Your task to perform on an android device: turn on improve location accuracy Image 0: 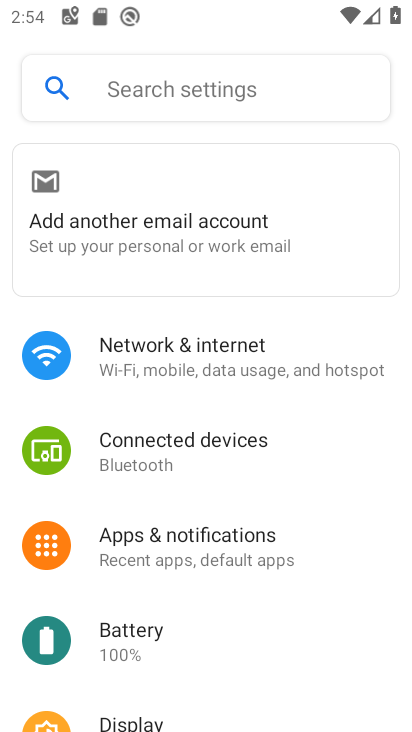
Step 0: drag from (219, 622) to (230, 314)
Your task to perform on an android device: turn on improve location accuracy Image 1: 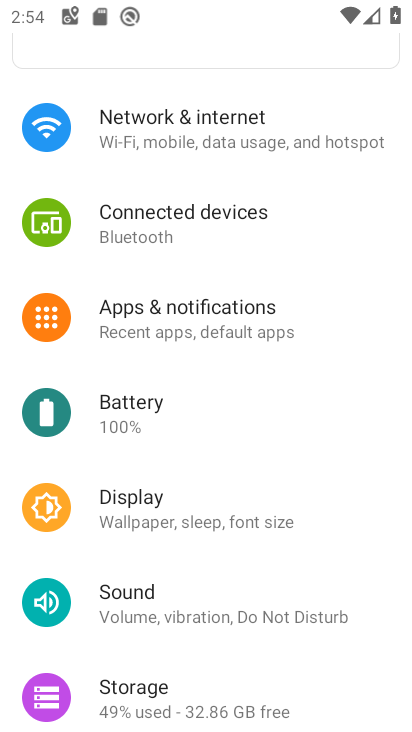
Step 1: drag from (168, 653) to (296, 128)
Your task to perform on an android device: turn on improve location accuracy Image 2: 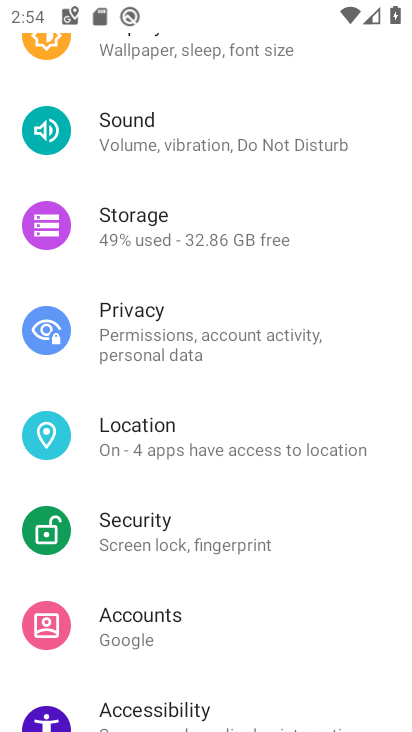
Step 2: drag from (185, 654) to (262, 248)
Your task to perform on an android device: turn on improve location accuracy Image 3: 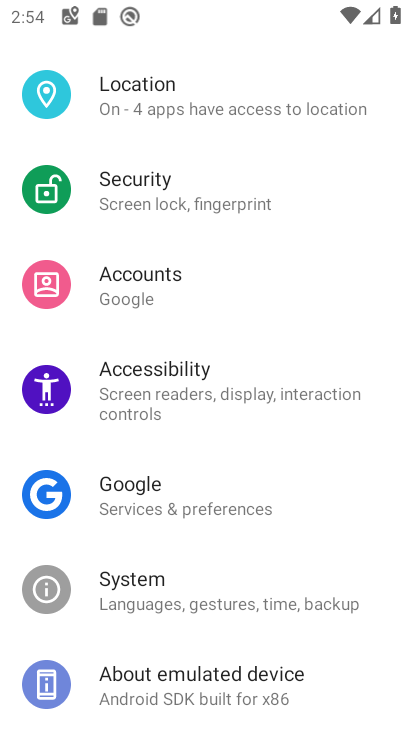
Step 3: click (248, 104)
Your task to perform on an android device: turn on improve location accuracy Image 4: 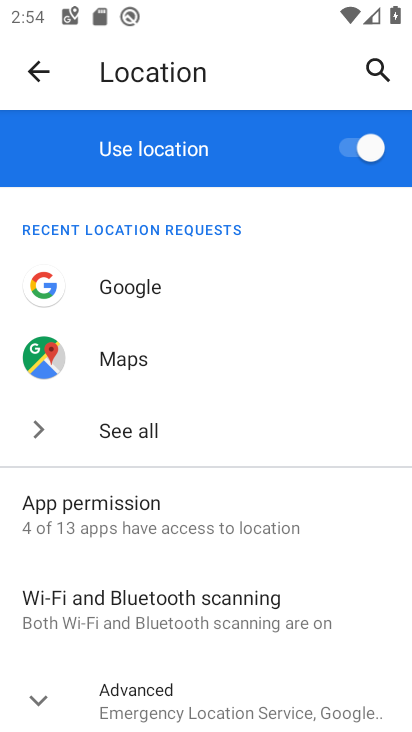
Step 4: click (162, 701)
Your task to perform on an android device: turn on improve location accuracy Image 5: 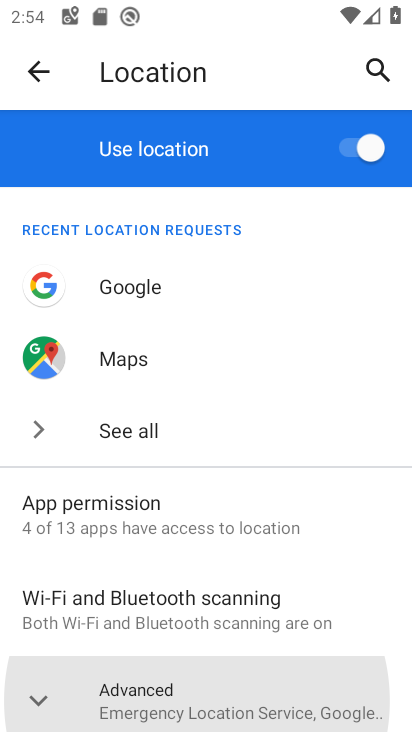
Step 5: drag from (191, 645) to (312, 67)
Your task to perform on an android device: turn on improve location accuracy Image 6: 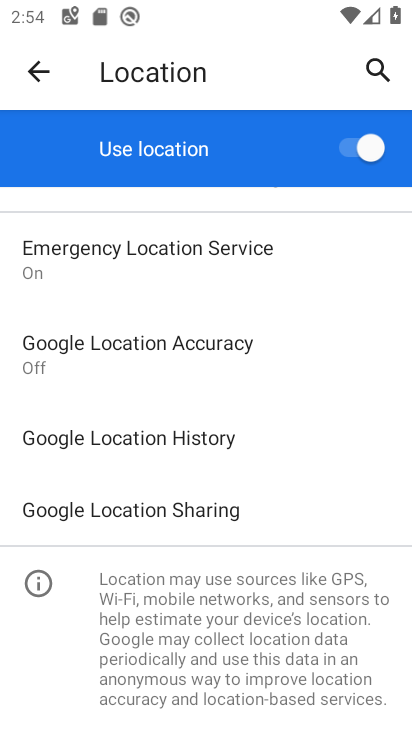
Step 6: click (163, 326)
Your task to perform on an android device: turn on improve location accuracy Image 7: 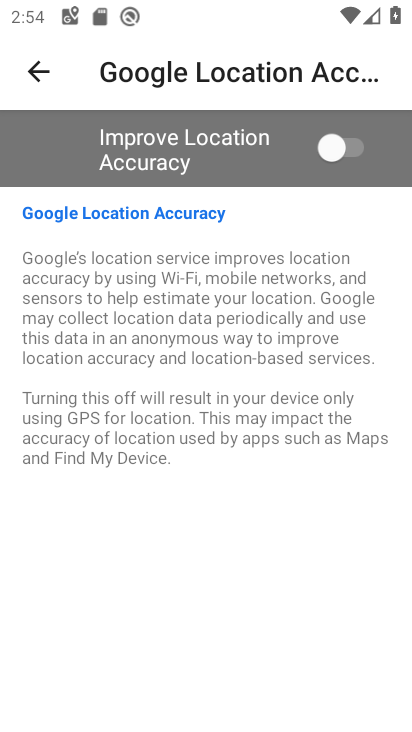
Step 7: click (344, 139)
Your task to perform on an android device: turn on improve location accuracy Image 8: 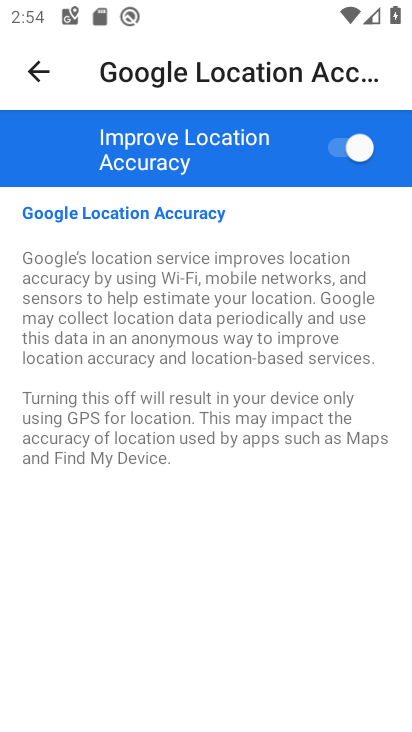
Step 8: task complete